Your task to perform on an android device: delete a single message in the gmail app Image 0: 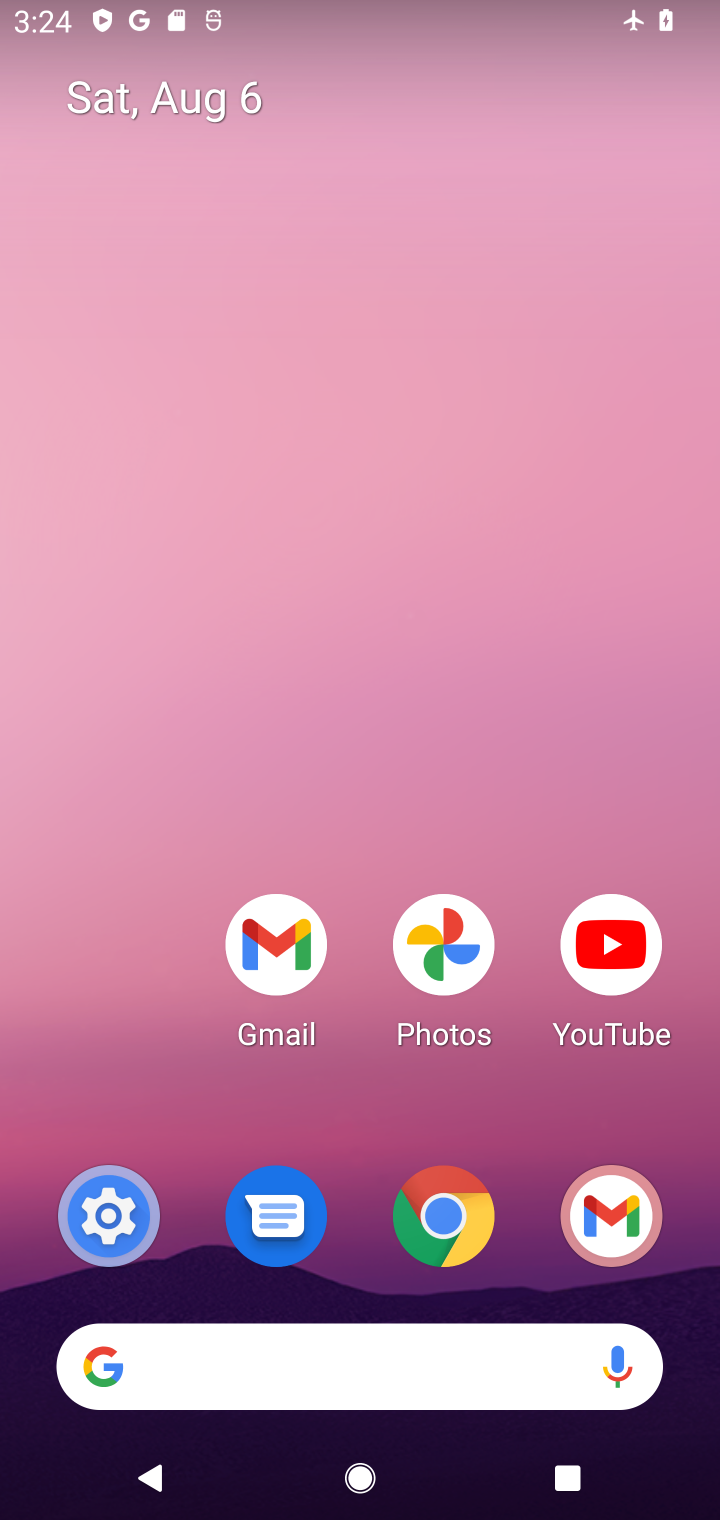
Step 0: click (255, 951)
Your task to perform on an android device: delete a single message in the gmail app Image 1: 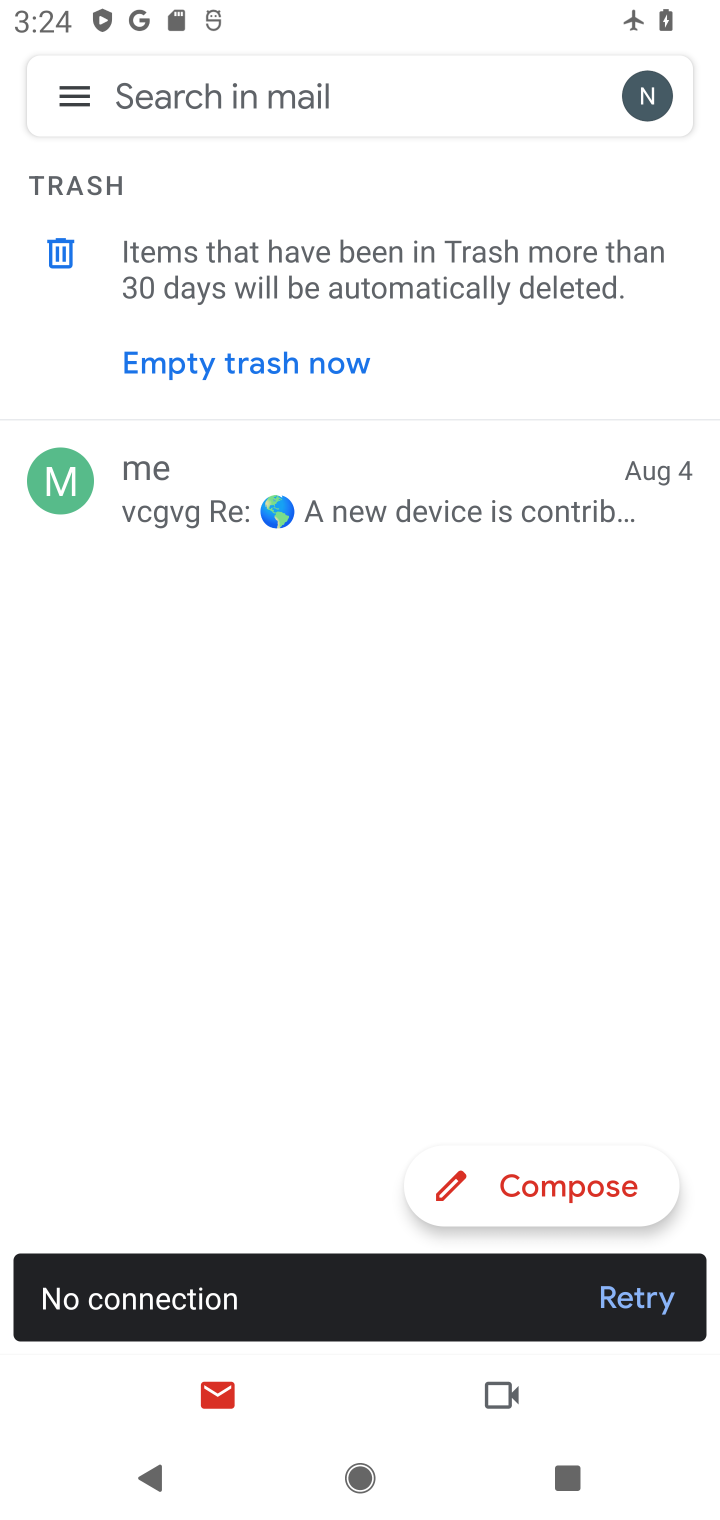
Step 1: click (71, 109)
Your task to perform on an android device: delete a single message in the gmail app Image 2: 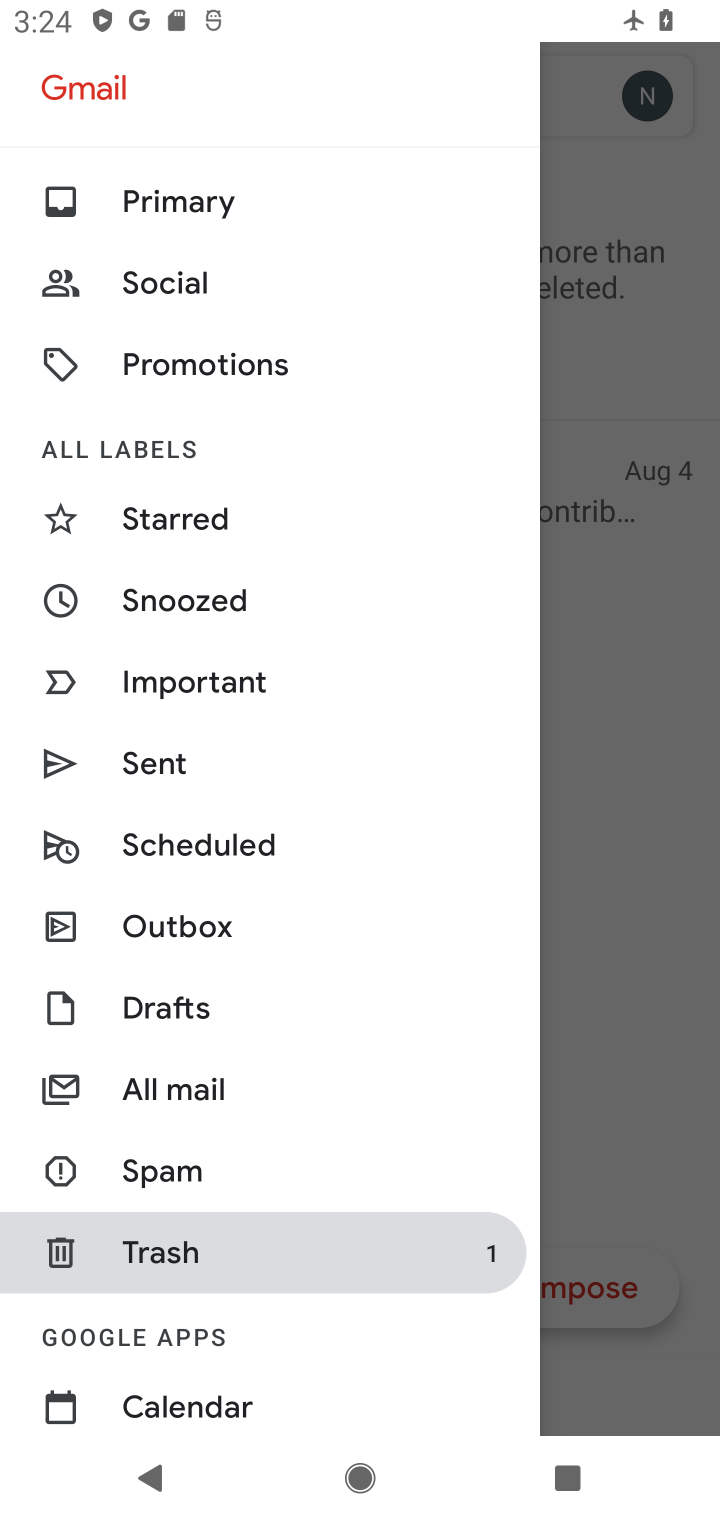
Step 2: click (212, 1087)
Your task to perform on an android device: delete a single message in the gmail app Image 3: 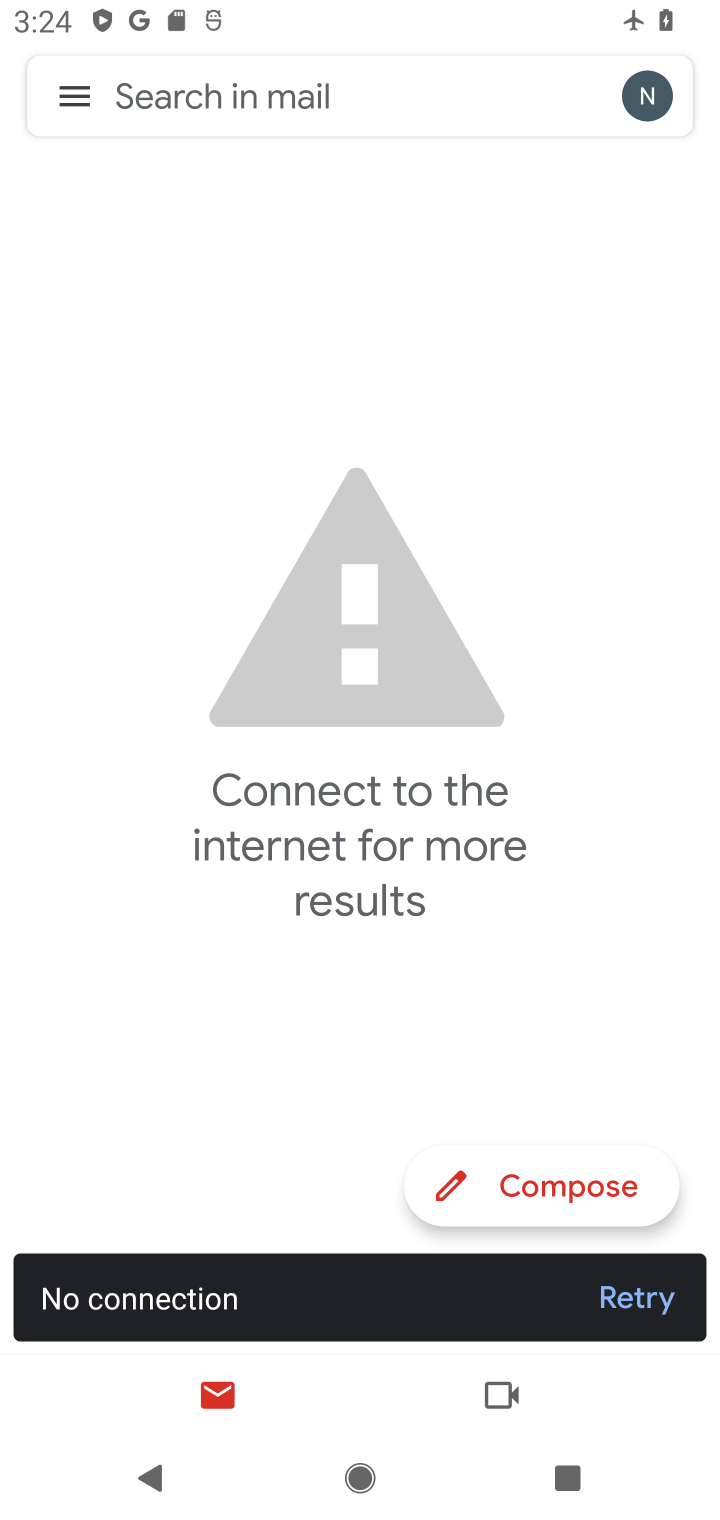
Step 3: task complete